Your task to perform on an android device: toggle wifi Image 0: 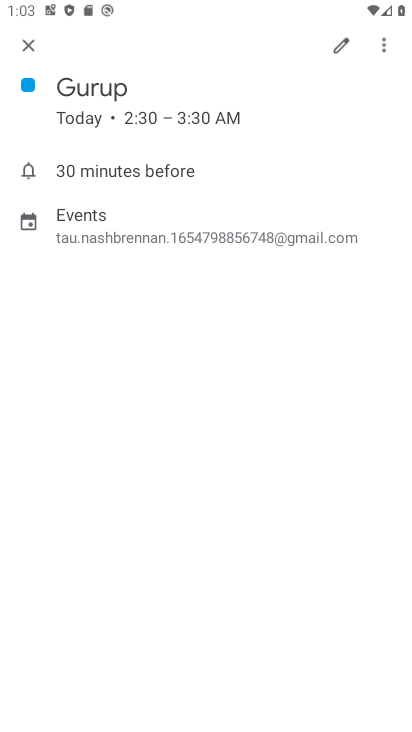
Step 0: press home button
Your task to perform on an android device: toggle wifi Image 1: 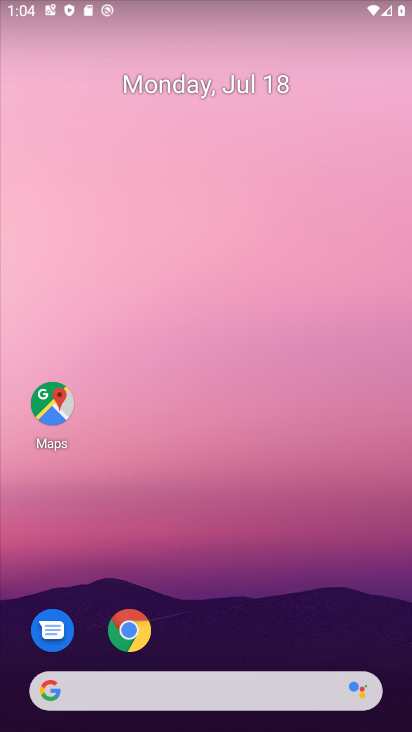
Step 1: drag from (261, 607) to (279, 46)
Your task to perform on an android device: toggle wifi Image 2: 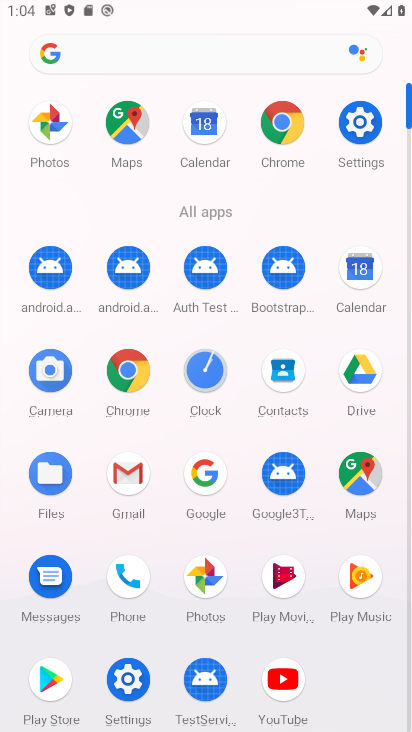
Step 2: click (359, 119)
Your task to perform on an android device: toggle wifi Image 3: 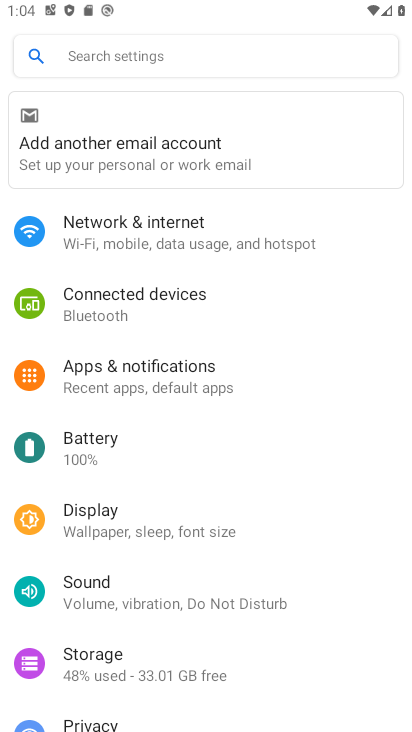
Step 3: click (205, 231)
Your task to perform on an android device: toggle wifi Image 4: 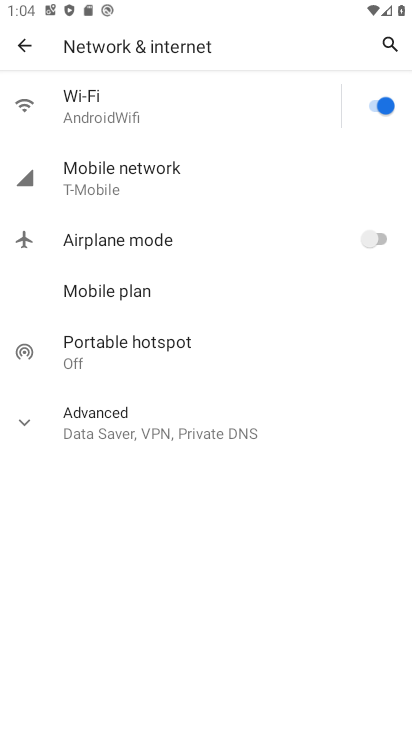
Step 4: click (381, 107)
Your task to perform on an android device: toggle wifi Image 5: 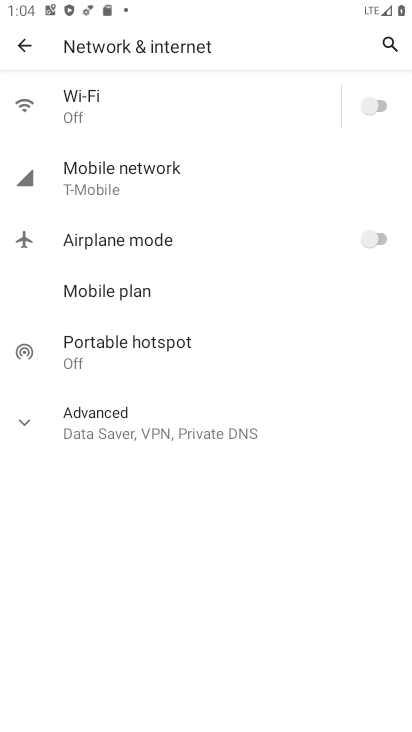
Step 5: task complete